Your task to perform on an android device: Go to Google maps Image 0: 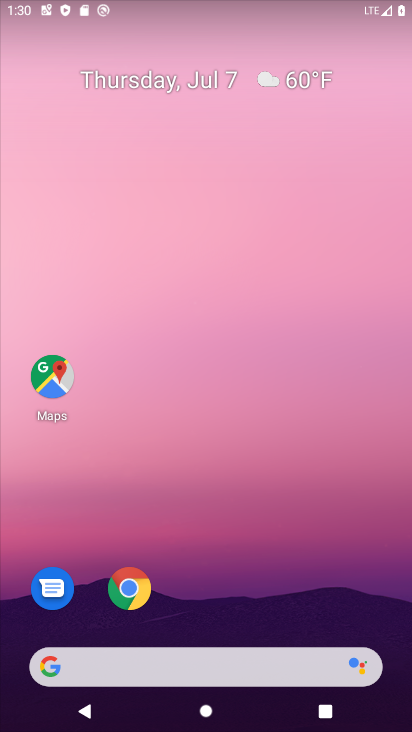
Step 0: drag from (234, 597) to (235, 168)
Your task to perform on an android device: Go to Google maps Image 1: 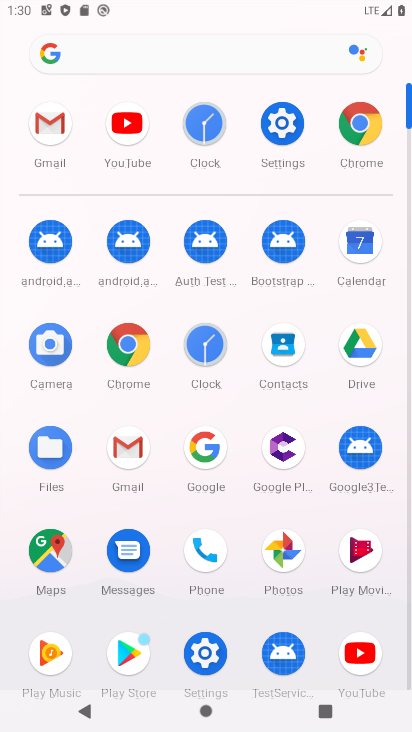
Step 1: click (51, 548)
Your task to perform on an android device: Go to Google maps Image 2: 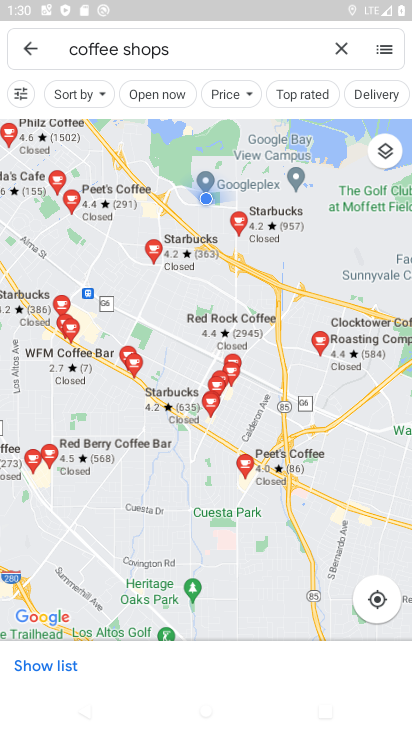
Step 2: task complete